Your task to perform on an android device: Go to Android settings Image 0: 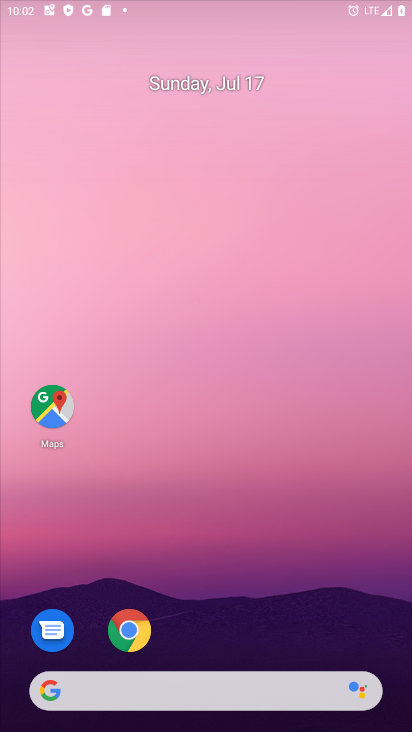
Step 0: press home button
Your task to perform on an android device: Go to Android settings Image 1: 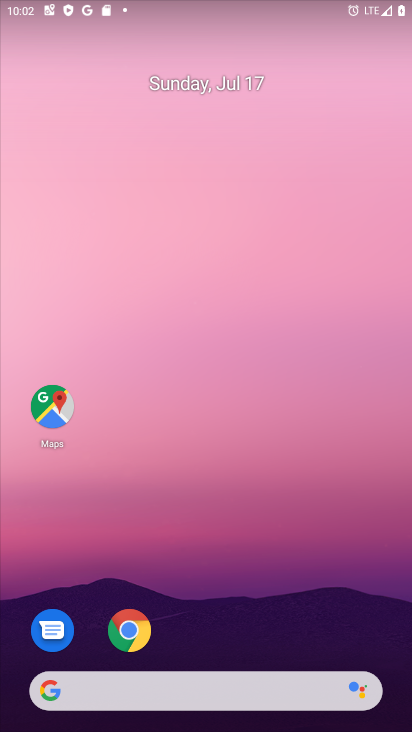
Step 1: drag from (230, 639) to (238, 28)
Your task to perform on an android device: Go to Android settings Image 2: 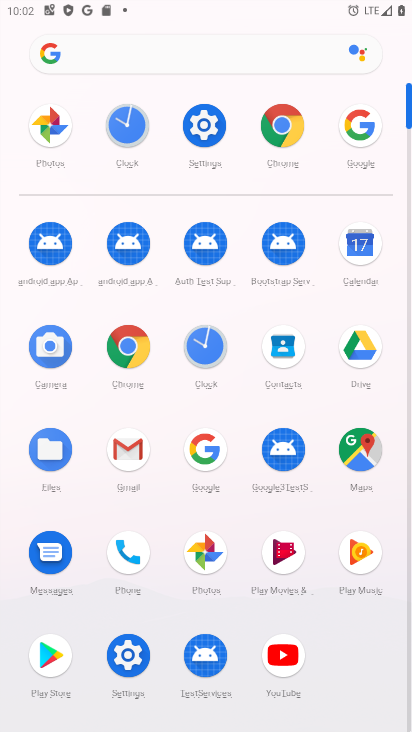
Step 2: click (201, 117)
Your task to perform on an android device: Go to Android settings Image 3: 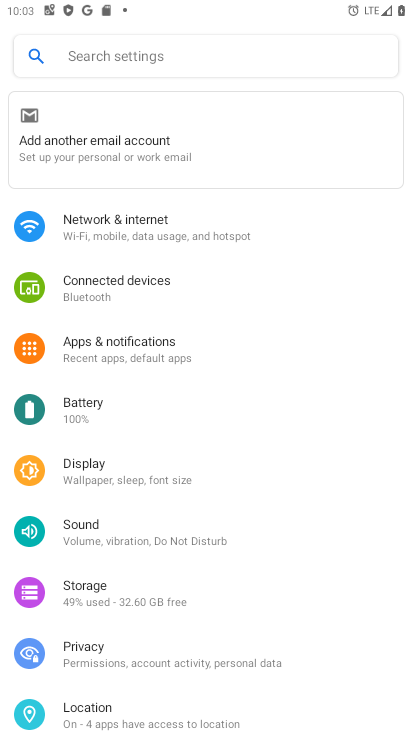
Step 3: drag from (180, 685) to (201, 176)
Your task to perform on an android device: Go to Android settings Image 4: 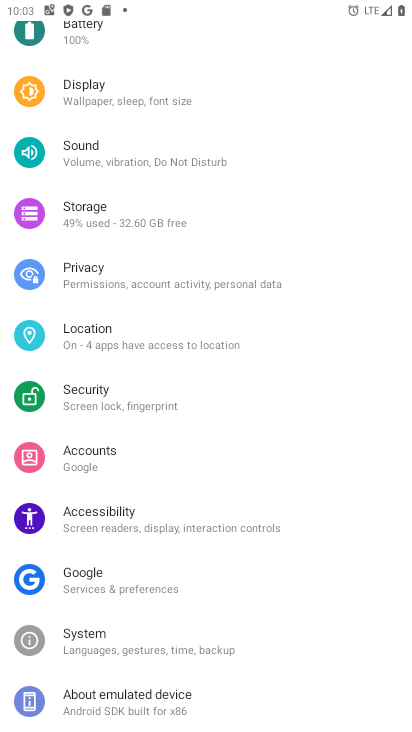
Step 4: click (220, 700)
Your task to perform on an android device: Go to Android settings Image 5: 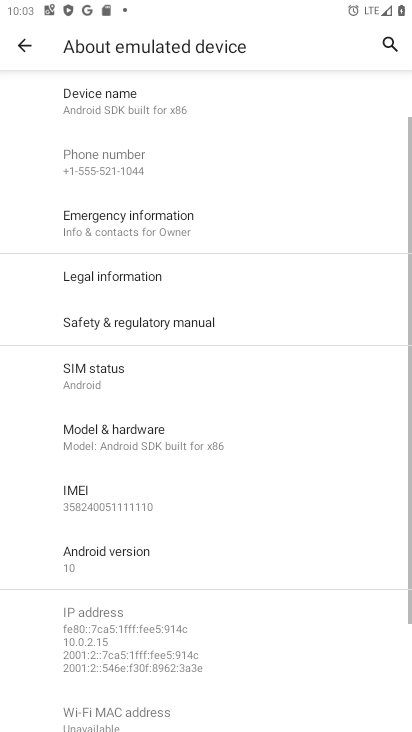
Step 5: click (97, 567)
Your task to perform on an android device: Go to Android settings Image 6: 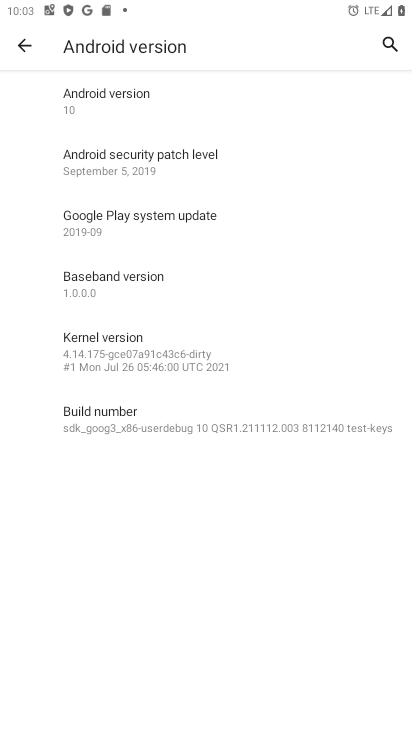
Step 6: task complete